Your task to perform on an android device: Open location settings Image 0: 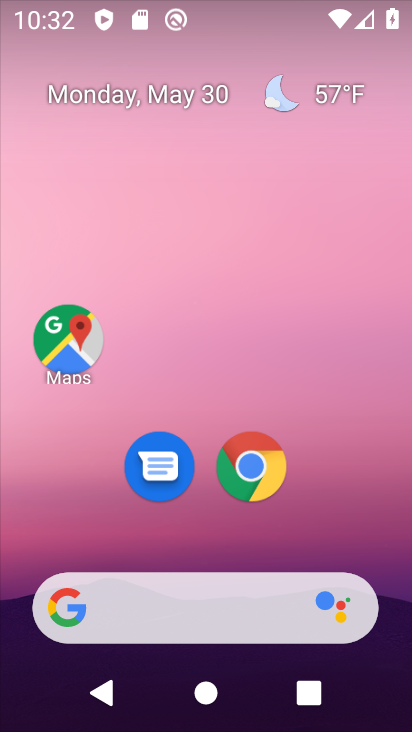
Step 0: drag from (59, 549) to (155, 114)
Your task to perform on an android device: Open location settings Image 1: 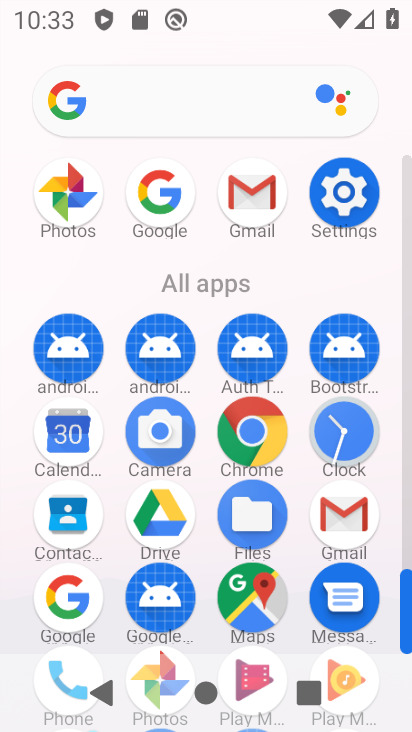
Step 1: drag from (164, 600) to (218, 361)
Your task to perform on an android device: Open location settings Image 2: 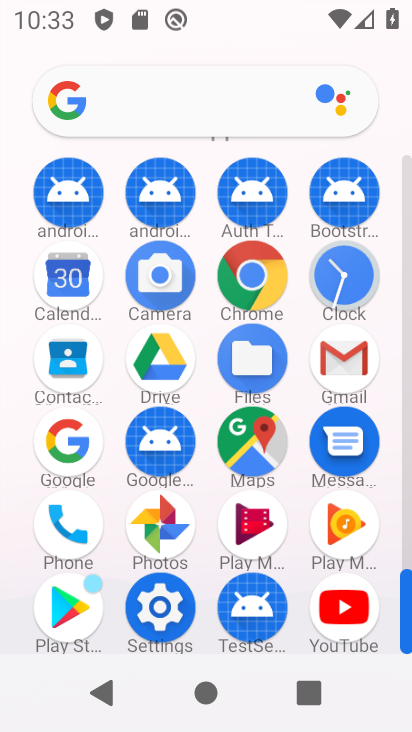
Step 2: click (159, 613)
Your task to perform on an android device: Open location settings Image 3: 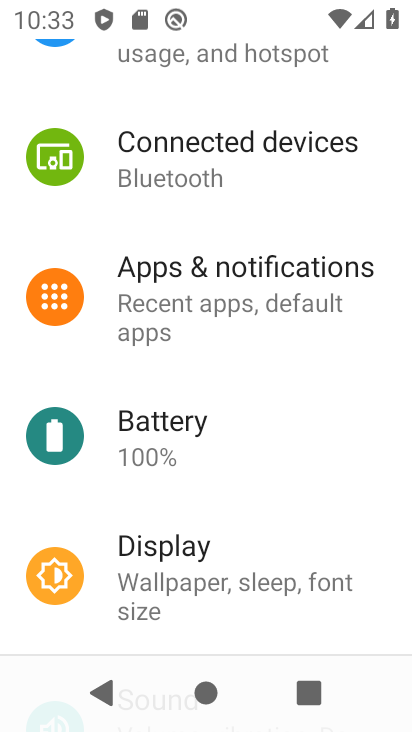
Step 3: drag from (156, 572) to (239, 174)
Your task to perform on an android device: Open location settings Image 4: 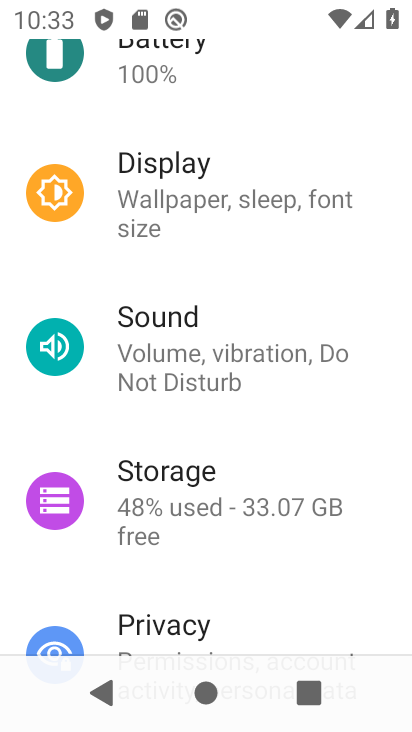
Step 4: drag from (200, 503) to (262, 178)
Your task to perform on an android device: Open location settings Image 5: 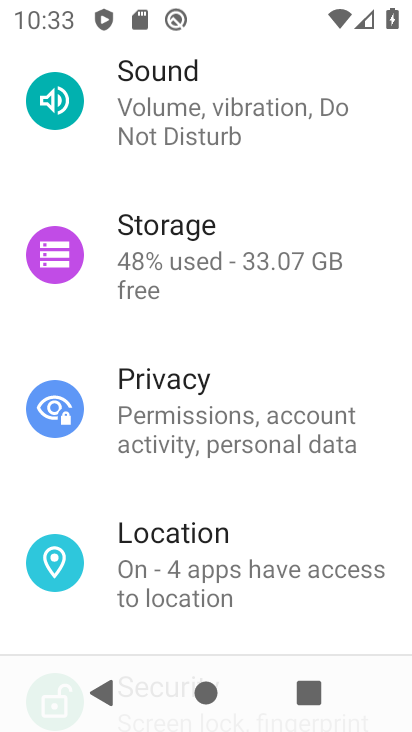
Step 5: drag from (190, 545) to (224, 315)
Your task to perform on an android device: Open location settings Image 6: 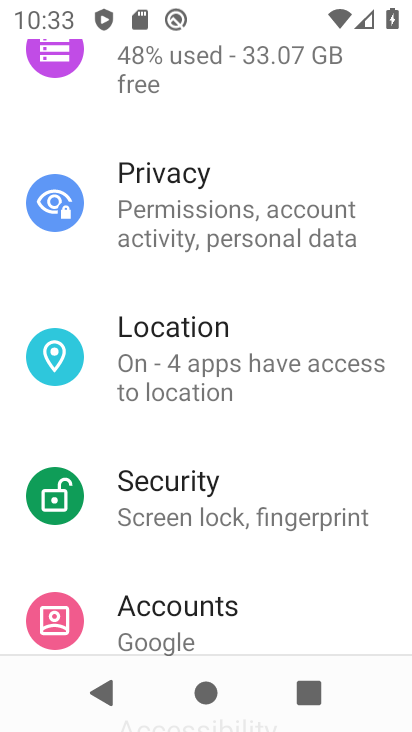
Step 6: click (184, 382)
Your task to perform on an android device: Open location settings Image 7: 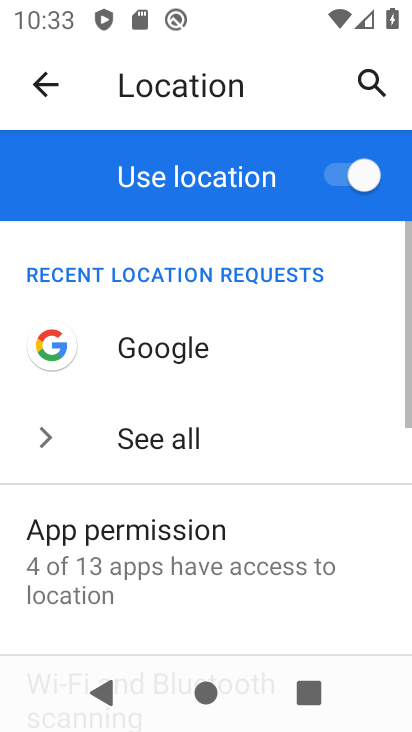
Step 7: task complete